Your task to perform on an android device: delete browsing data in the chrome app Image 0: 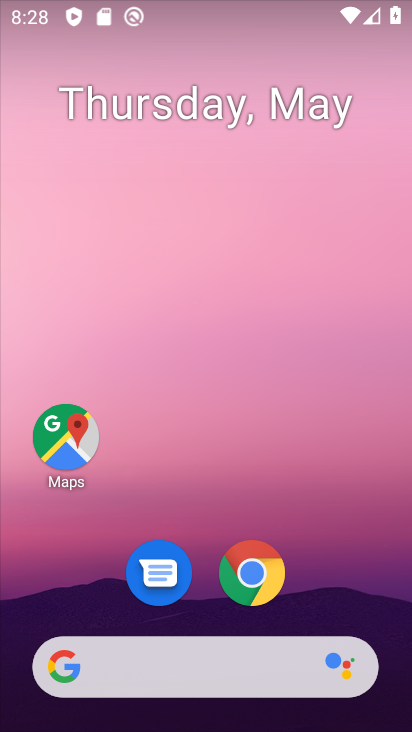
Step 0: click (249, 586)
Your task to perform on an android device: delete browsing data in the chrome app Image 1: 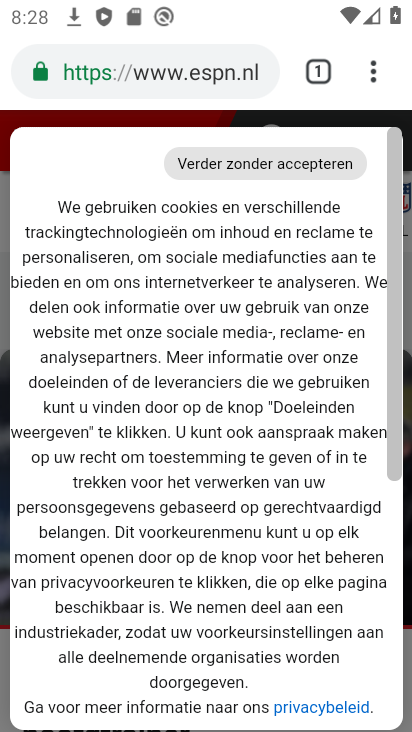
Step 1: drag from (376, 71) to (220, 418)
Your task to perform on an android device: delete browsing data in the chrome app Image 2: 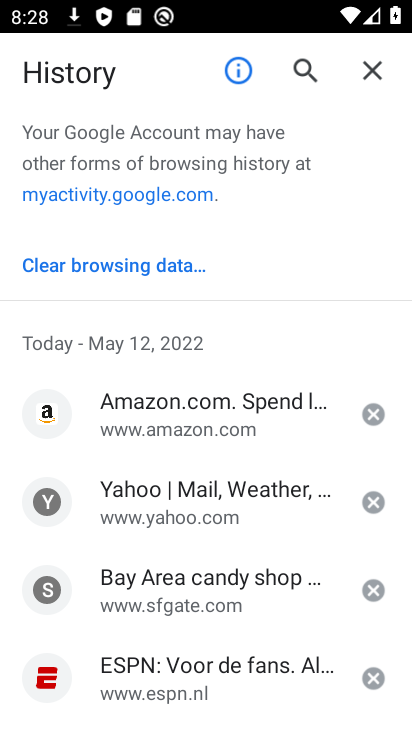
Step 2: click (149, 266)
Your task to perform on an android device: delete browsing data in the chrome app Image 3: 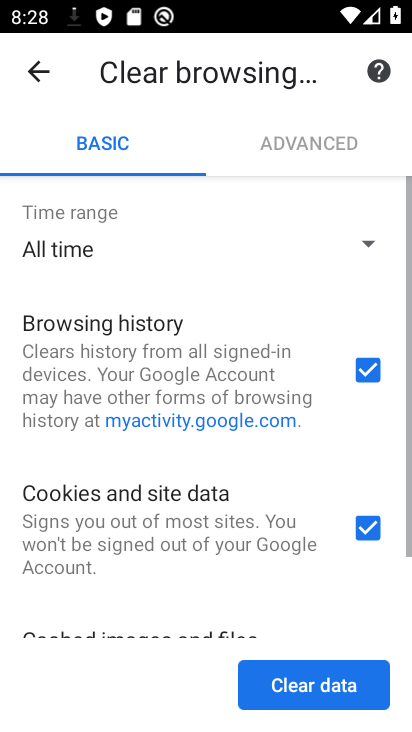
Step 3: click (372, 537)
Your task to perform on an android device: delete browsing data in the chrome app Image 4: 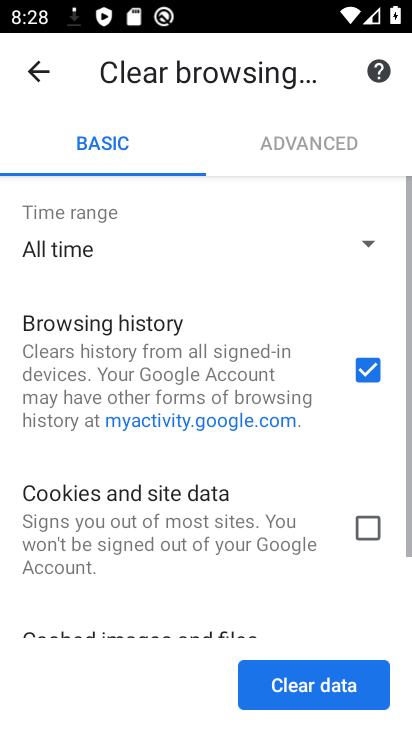
Step 4: drag from (314, 542) to (262, 287)
Your task to perform on an android device: delete browsing data in the chrome app Image 5: 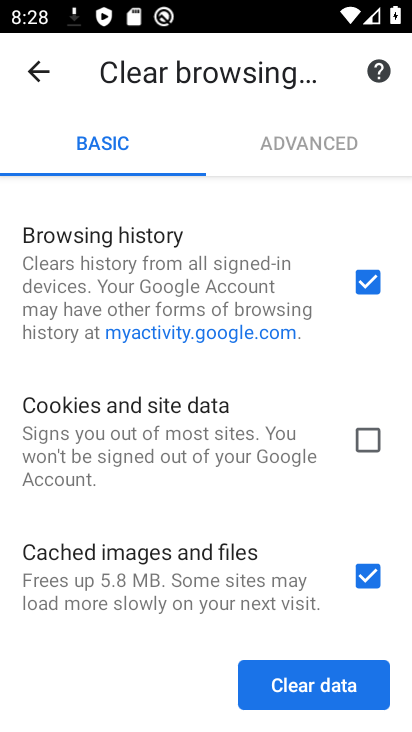
Step 5: click (368, 575)
Your task to perform on an android device: delete browsing data in the chrome app Image 6: 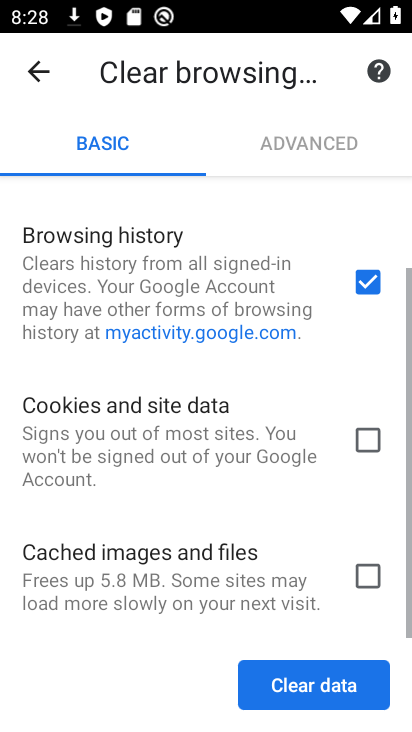
Step 6: click (340, 693)
Your task to perform on an android device: delete browsing data in the chrome app Image 7: 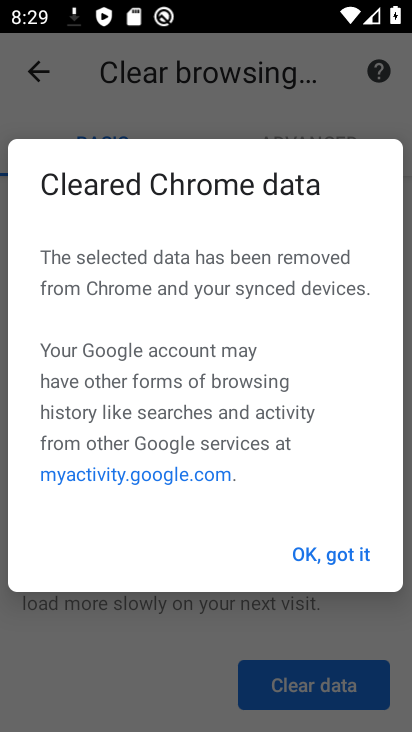
Step 7: click (362, 553)
Your task to perform on an android device: delete browsing data in the chrome app Image 8: 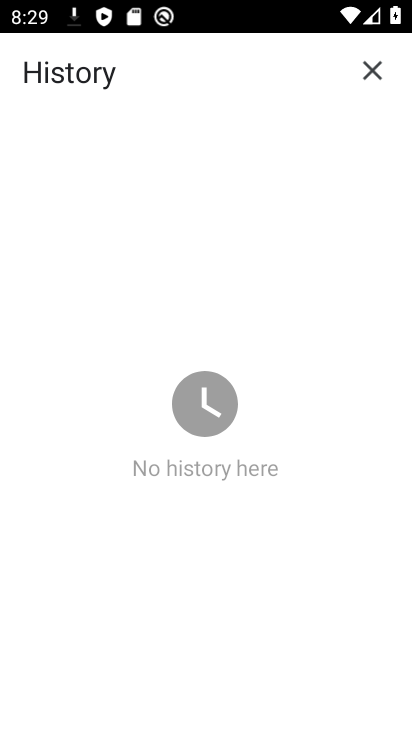
Step 8: task complete